Your task to perform on an android device: Do I have any events tomorrow? Image 0: 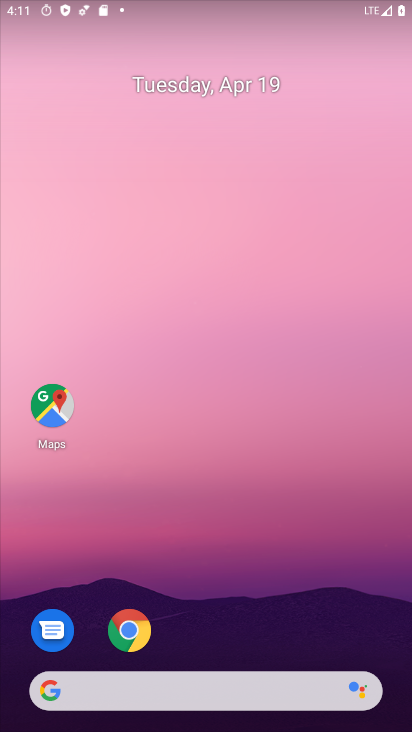
Step 0: drag from (233, 530) to (233, 281)
Your task to perform on an android device: Do I have any events tomorrow? Image 1: 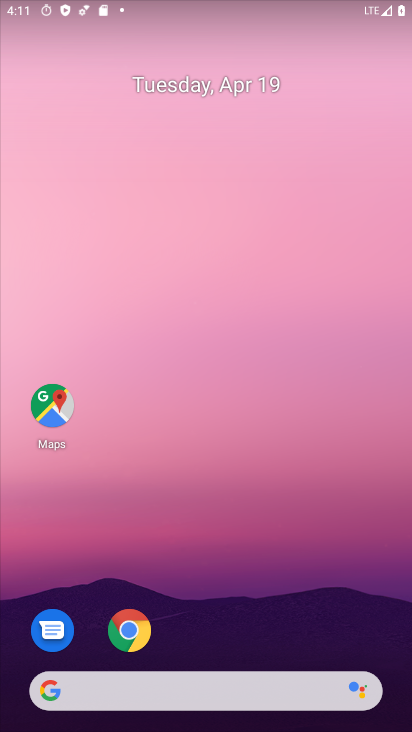
Step 1: drag from (220, 652) to (225, 187)
Your task to perform on an android device: Do I have any events tomorrow? Image 2: 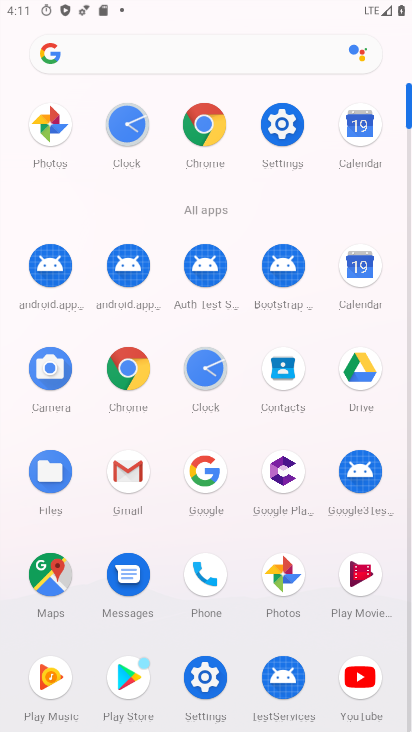
Step 2: click (364, 268)
Your task to perform on an android device: Do I have any events tomorrow? Image 3: 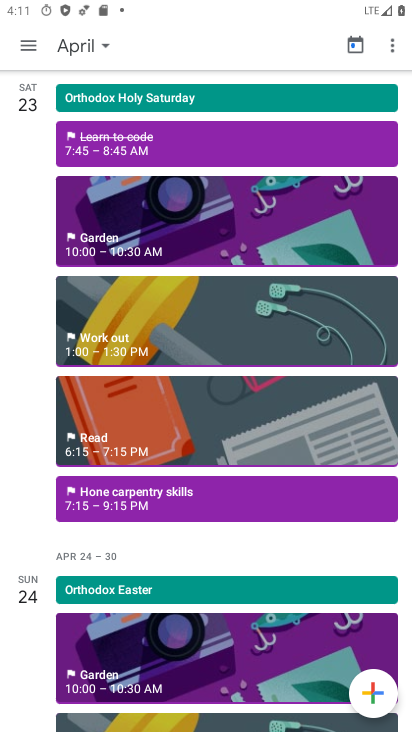
Step 3: click (106, 48)
Your task to perform on an android device: Do I have any events tomorrow? Image 4: 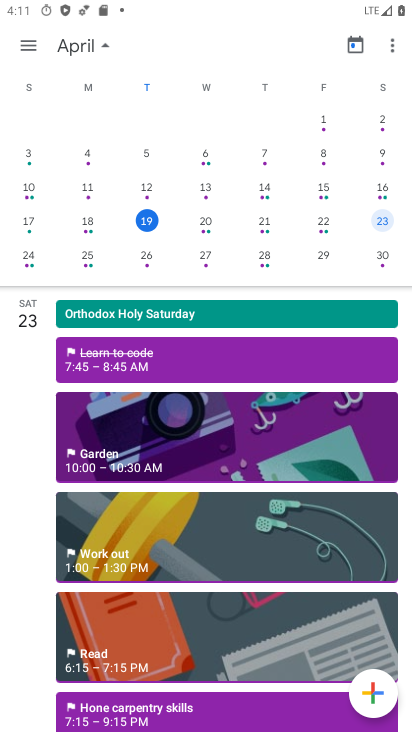
Step 4: click (215, 219)
Your task to perform on an android device: Do I have any events tomorrow? Image 5: 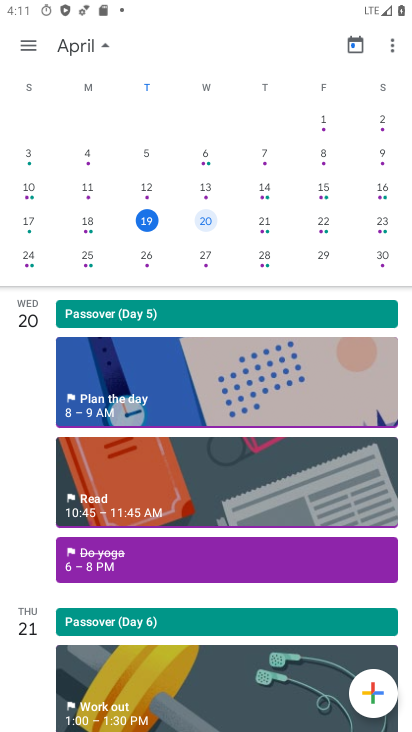
Step 5: click (197, 388)
Your task to perform on an android device: Do I have any events tomorrow? Image 6: 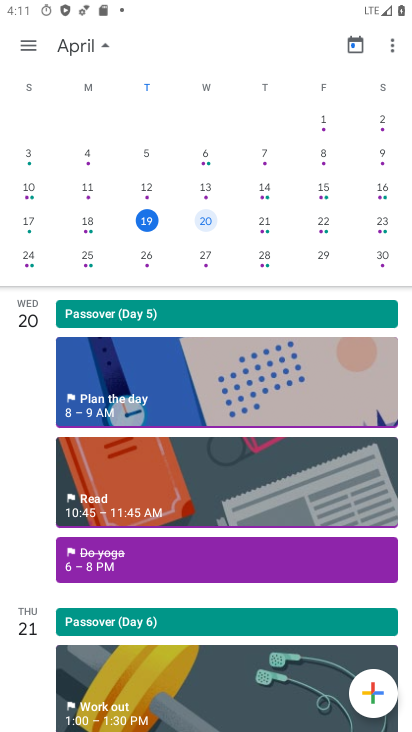
Step 6: click (267, 385)
Your task to perform on an android device: Do I have any events tomorrow? Image 7: 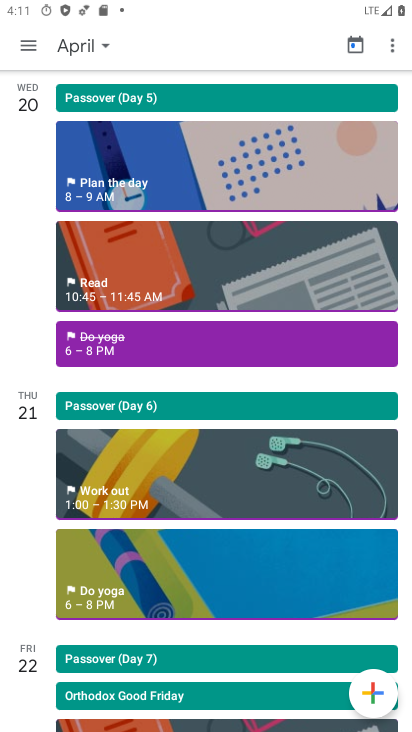
Step 7: task complete